Your task to perform on an android device: add a label to a message in the gmail app Image 0: 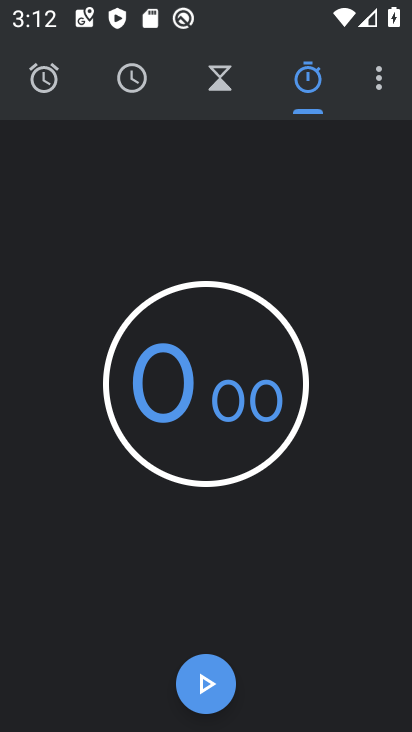
Step 0: press home button
Your task to perform on an android device: add a label to a message in the gmail app Image 1: 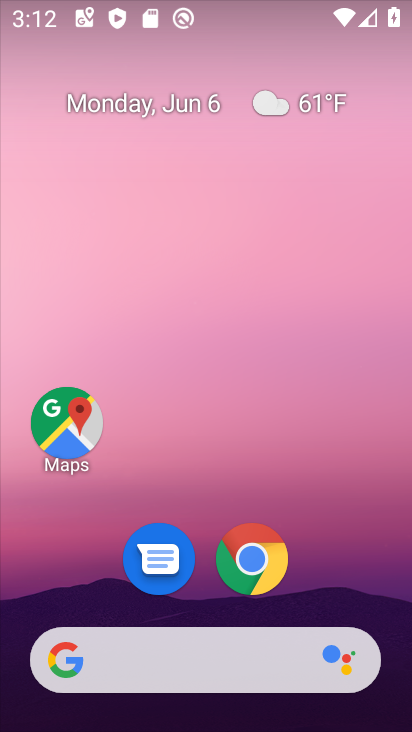
Step 1: drag from (222, 629) to (318, 26)
Your task to perform on an android device: add a label to a message in the gmail app Image 2: 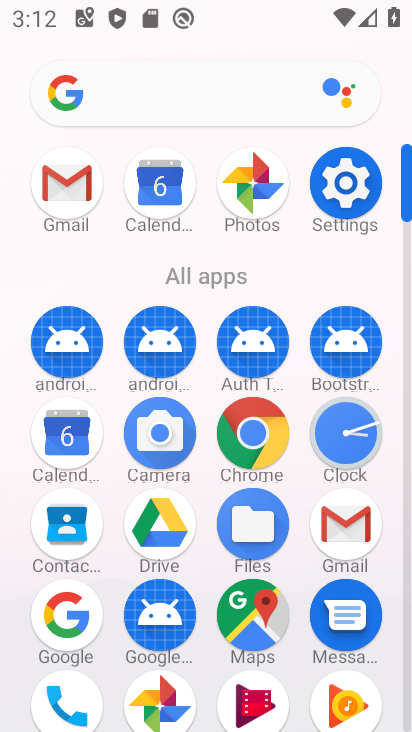
Step 2: click (337, 528)
Your task to perform on an android device: add a label to a message in the gmail app Image 3: 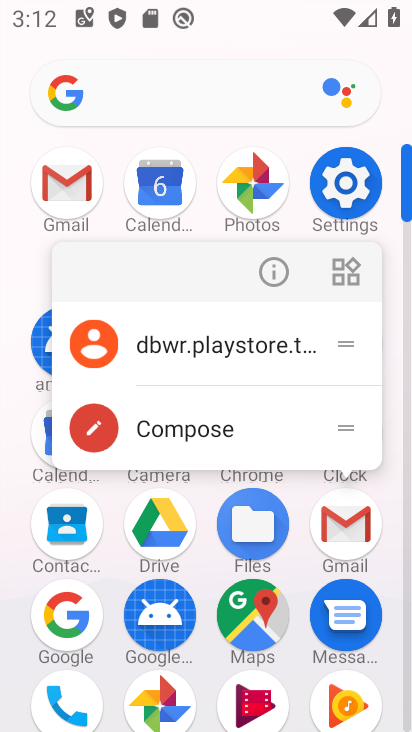
Step 3: click (346, 522)
Your task to perform on an android device: add a label to a message in the gmail app Image 4: 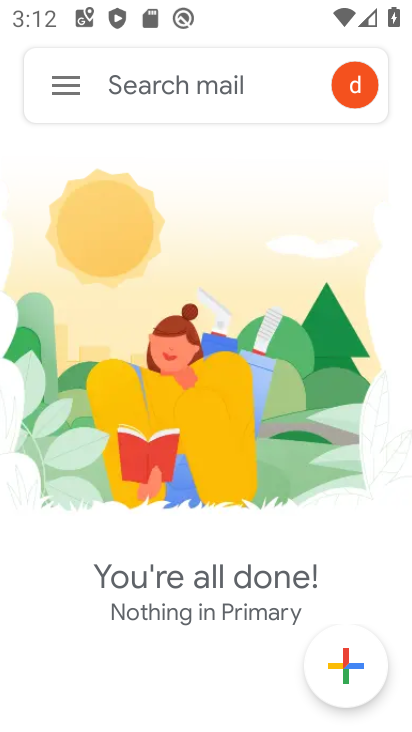
Step 4: task complete